Your task to perform on an android device: Search for flights from San Francisco to Tokyo Image 0: 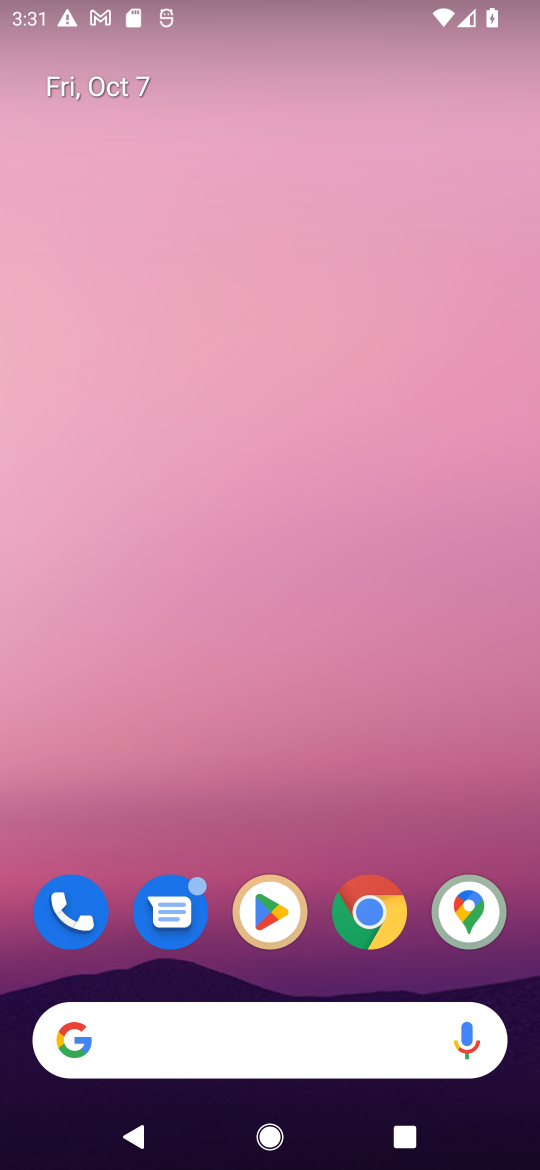
Step 0: drag from (310, 874) to (380, 449)
Your task to perform on an android device: Search for flights from San Francisco to Tokyo Image 1: 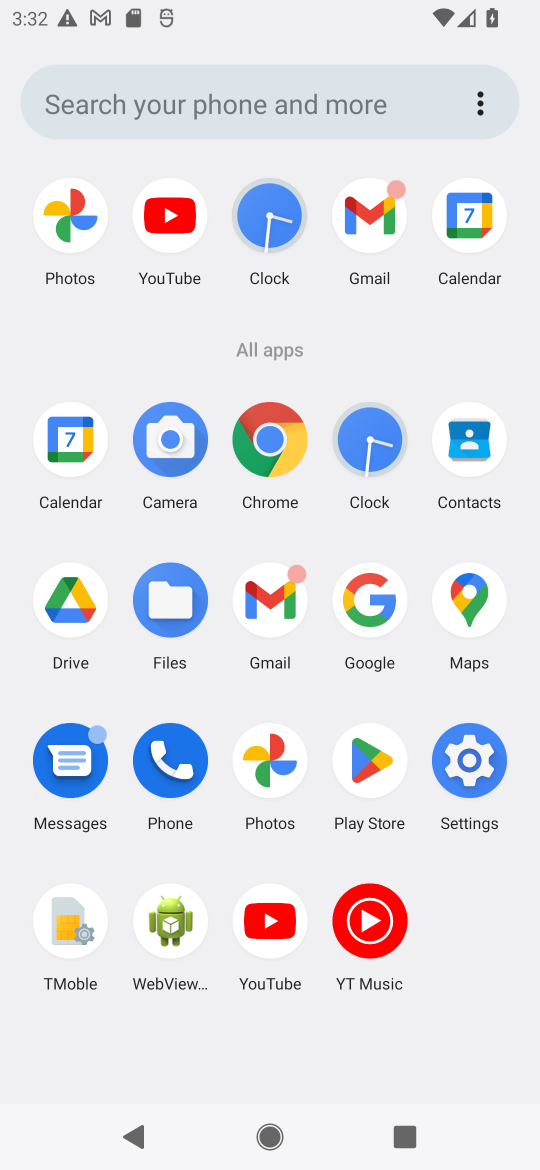
Step 1: click (344, 594)
Your task to perform on an android device: Search for flights from San Francisco to Tokyo Image 2: 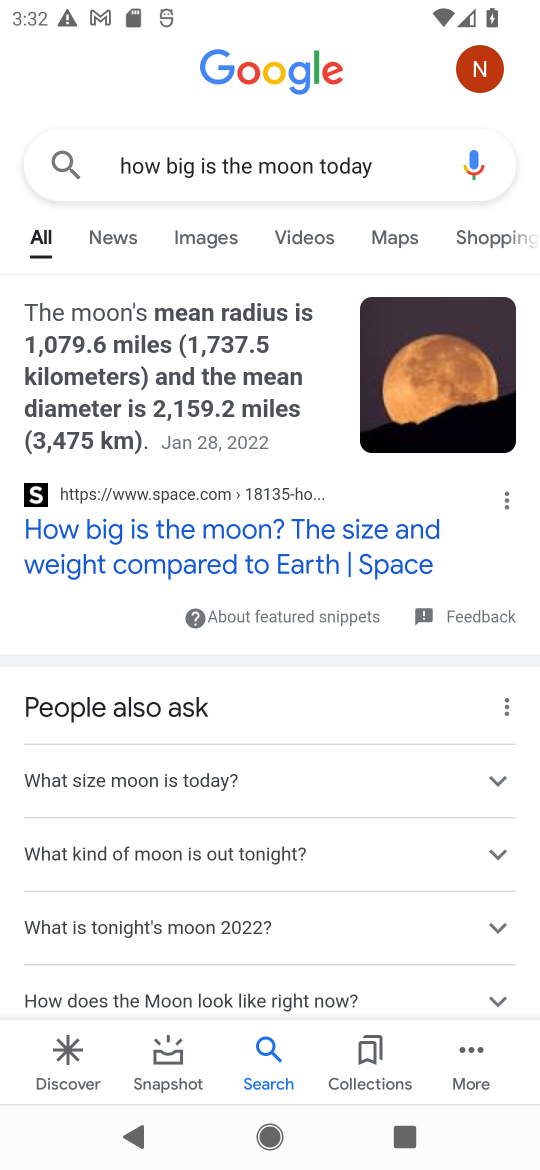
Step 2: click (374, 150)
Your task to perform on an android device: Search for flights from San Francisco to Tokyo Image 3: 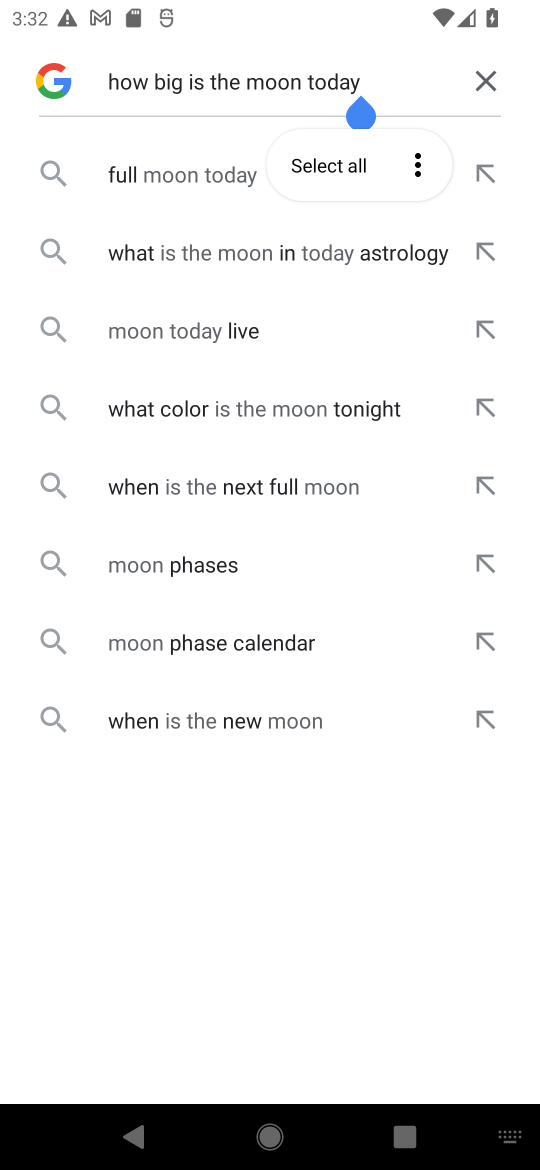
Step 3: click (503, 74)
Your task to perform on an android device: Search for flights from San Francisco to Tokyo Image 4: 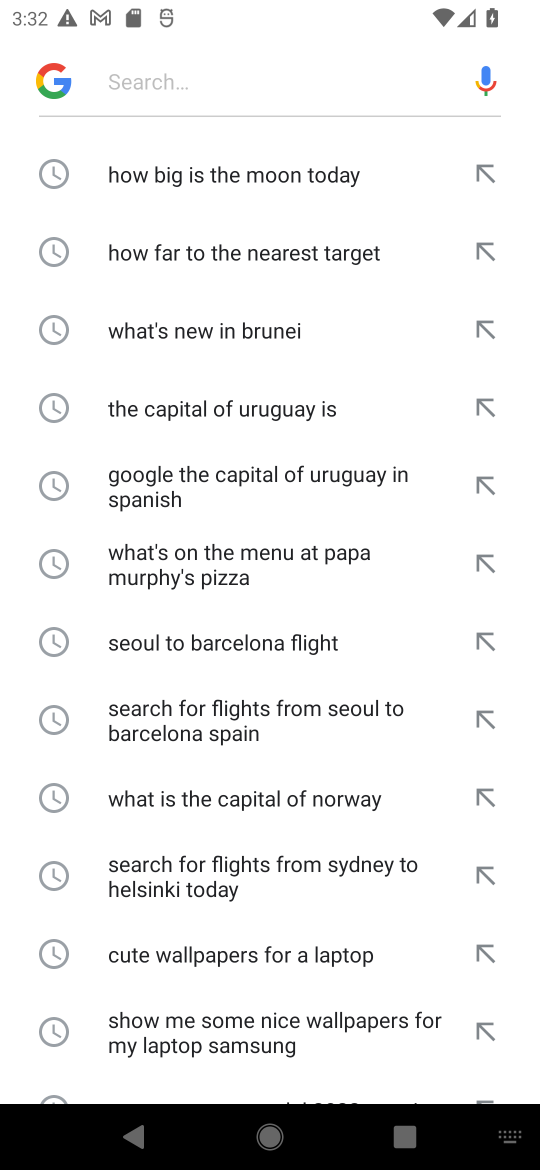
Step 4: click (256, 68)
Your task to perform on an android device: Search for flights from San Francisco to Tokyo Image 5: 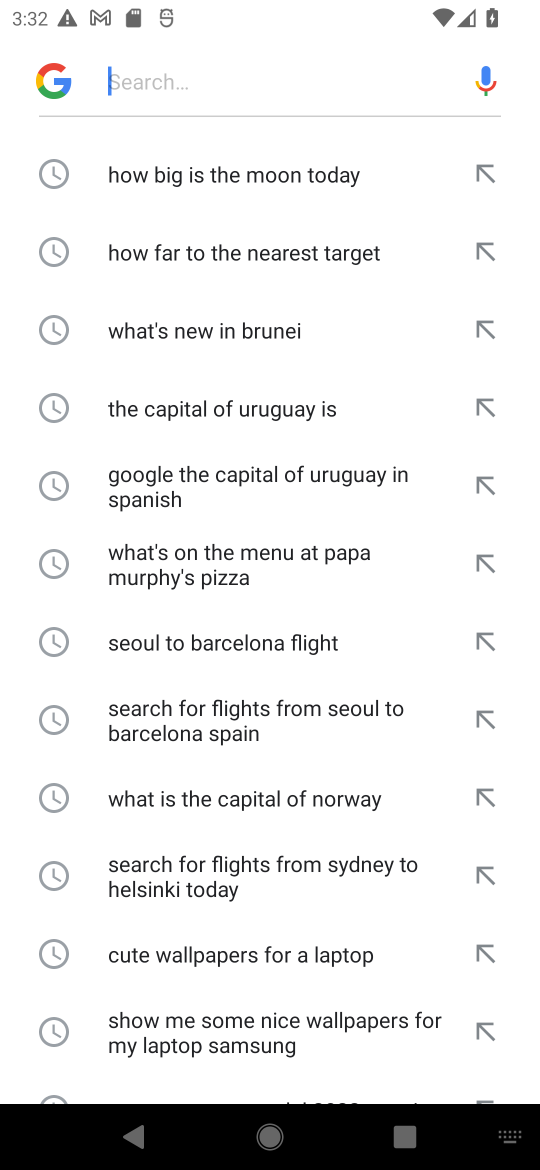
Step 5: type "Search for flights from San Francisco to Tokyo "
Your task to perform on an android device: Search for flights from San Francisco to Tokyo Image 6: 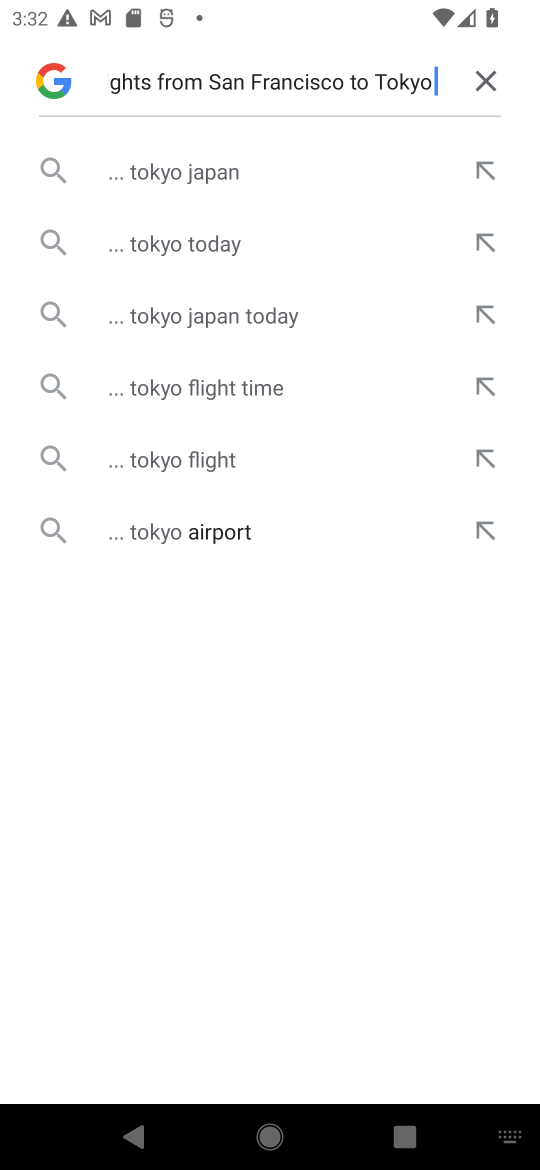
Step 6: click (218, 440)
Your task to perform on an android device: Search for flights from San Francisco to Tokyo Image 7: 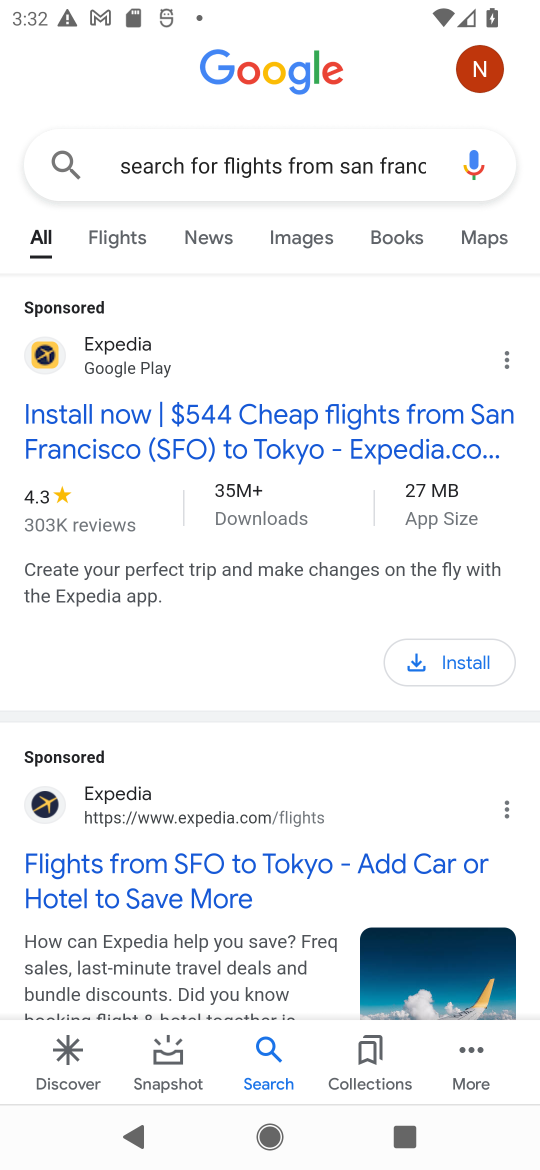
Step 7: click (127, 865)
Your task to perform on an android device: Search for flights from San Francisco to Tokyo Image 8: 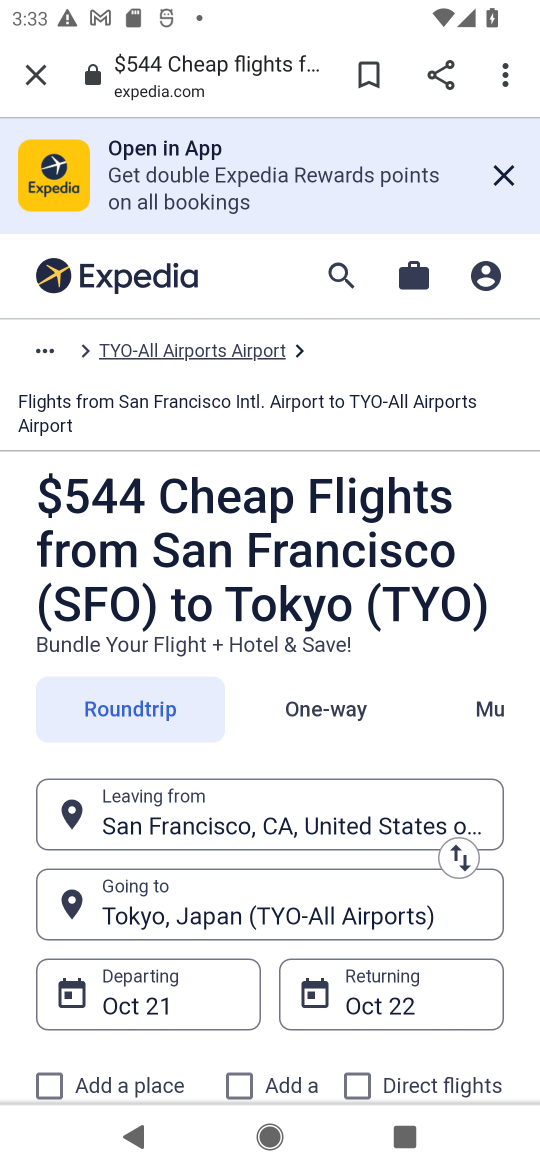
Step 8: task complete